Your task to perform on an android device: delete browsing data in the chrome app Image 0: 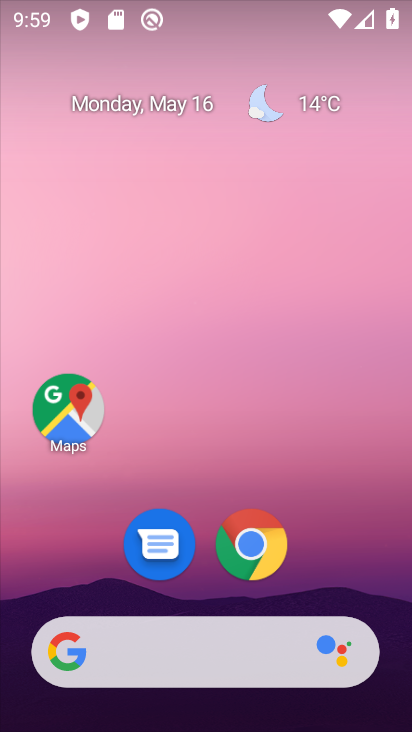
Step 0: click (275, 562)
Your task to perform on an android device: delete browsing data in the chrome app Image 1: 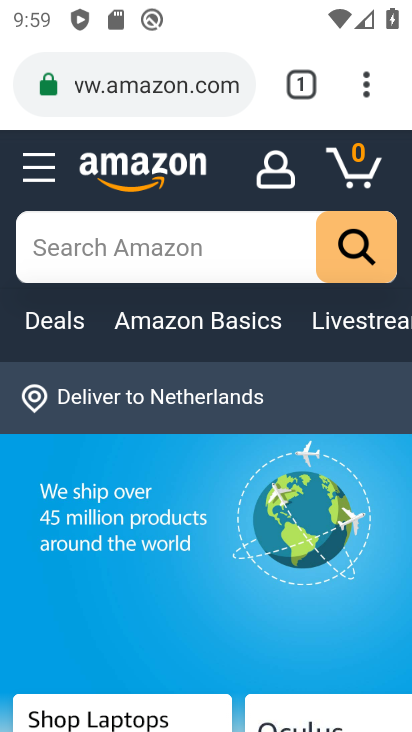
Step 1: click (371, 92)
Your task to perform on an android device: delete browsing data in the chrome app Image 2: 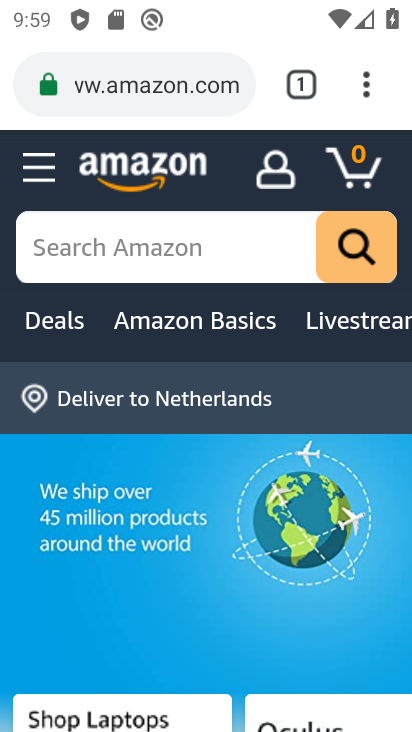
Step 2: drag from (365, 88) to (205, 464)
Your task to perform on an android device: delete browsing data in the chrome app Image 3: 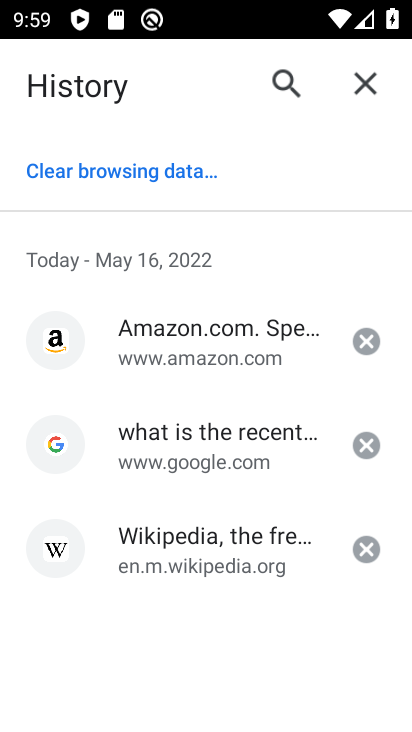
Step 3: click (104, 178)
Your task to perform on an android device: delete browsing data in the chrome app Image 4: 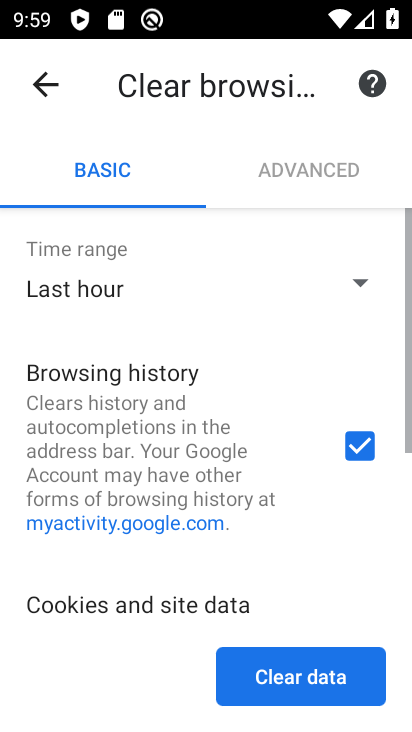
Step 4: drag from (312, 536) to (294, 257)
Your task to perform on an android device: delete browsing data in the chrome app Image 5: 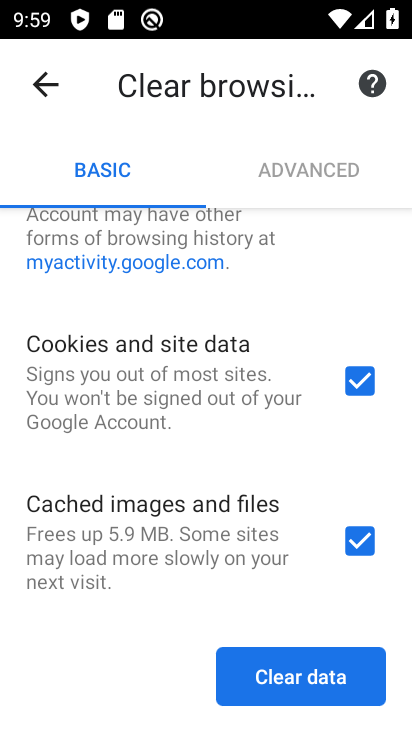
Step 5: click (362, 381)
Your task to perform on an android device: delete browsing data in the chrome app Image 6: 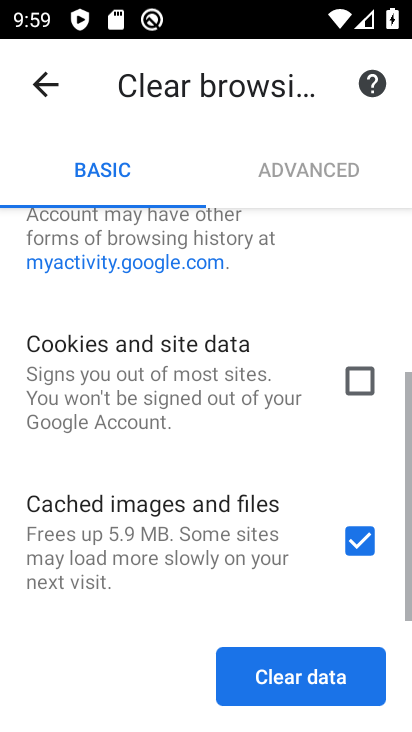
Step 6: click (361, 554)
Your task to perform on an android device: delete browsing data in the chrome app Image 7: 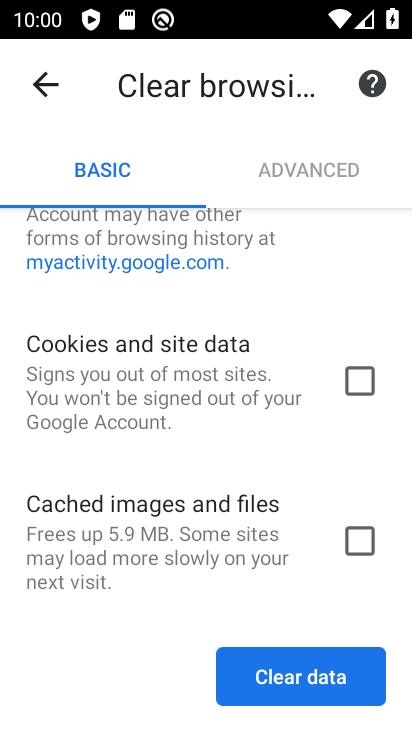
Step 7: click (346, 673)
Your task to perform on an android device: delete browsing data in the chrome app Image 8: 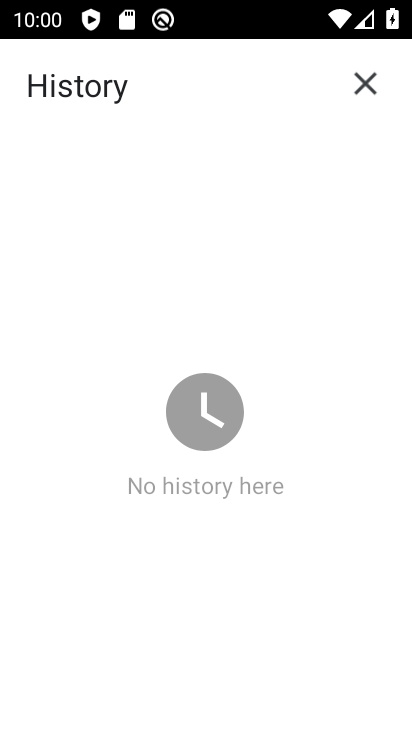
Step 8: task complete